Your task to perform on an android device: Open Google Chrome and open the bookmarks view Image 0: 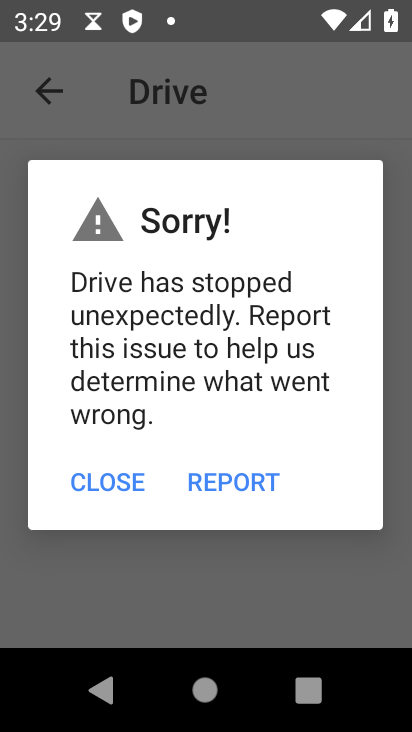
Step 0: press home button
Your task to perform on an android device: Open Google Chrome and open the bookmarks view Image 1: 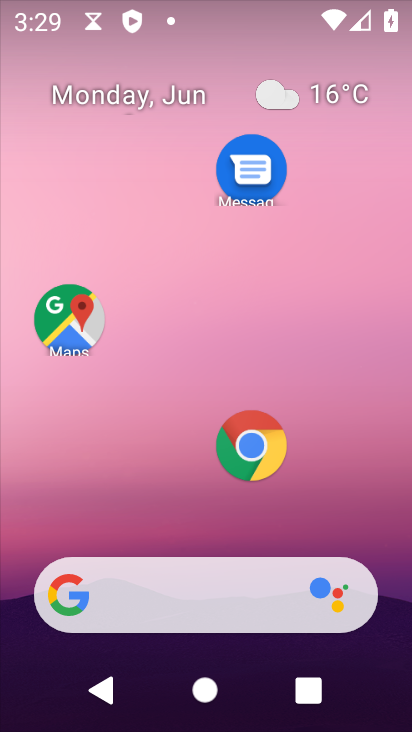
Step 1: click (273, 455)
Your task to perform on an android device: Open Google Chrome and open the bookmarks view Image 2: 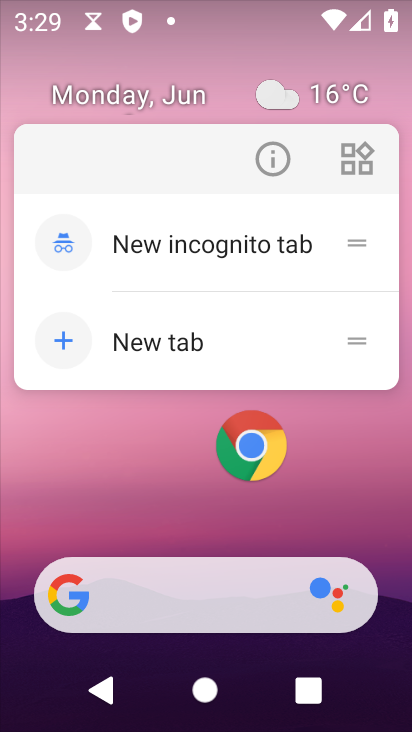
Step 2: click (268, 455)
Your task to perform on an android device: Open Google Chrome and open the bookmarks view Image 3: 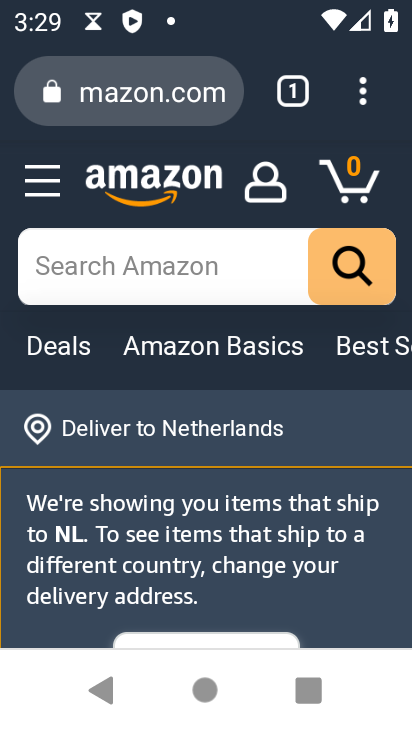
Step 3: task complete